Your task to perform on an android device: What is the news today? Image 0: 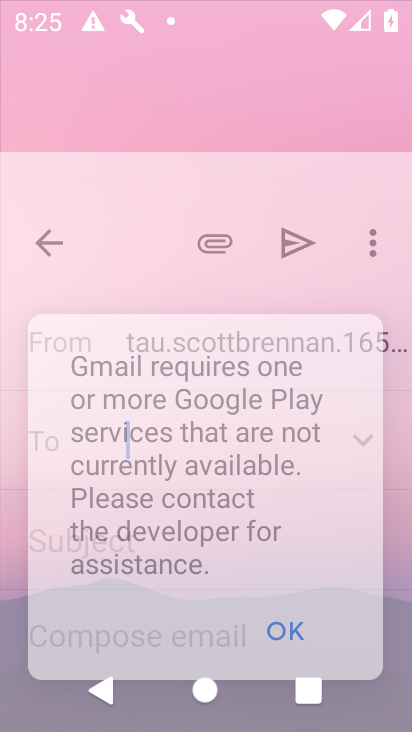
Step 0: press back button
Your task to perform on an android device: What is the news today? Image 1: 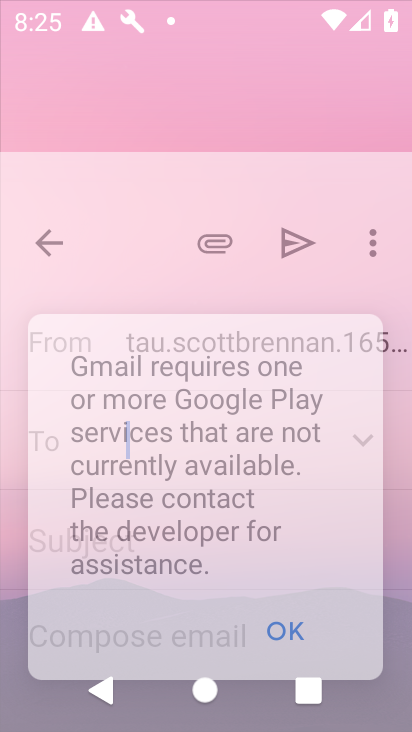
Step 1: click (284, 635)
Your task to perform on an android device: What is the news today? Image 2: 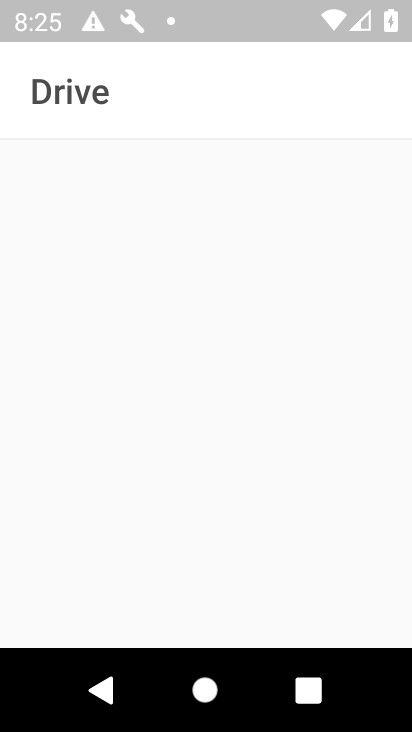
Step 2: click (288, 622)
Your task to perform on an android device: What is the news today? Image 3: 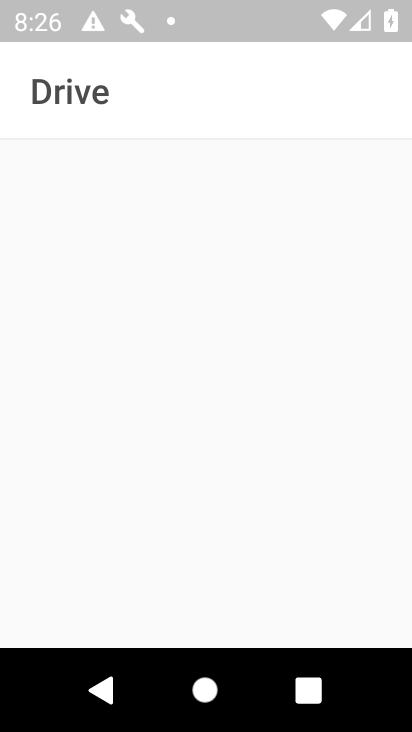
Step 3: press back button
Your task to perform on an android device: What is the news today? Image 4: 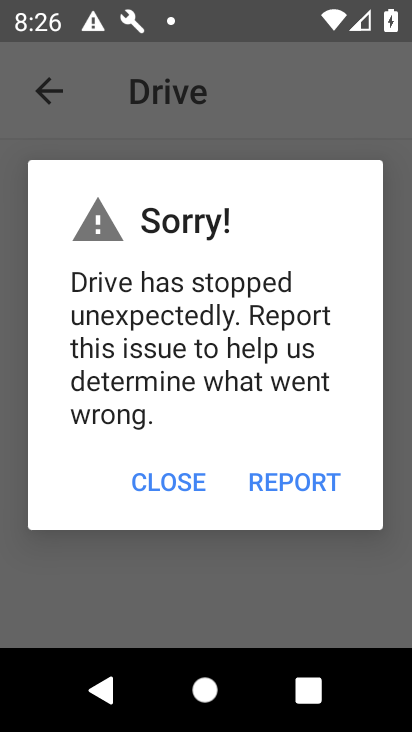
Step 4: press back button
Your task to perform on an android device: What is the news today? Image 5: 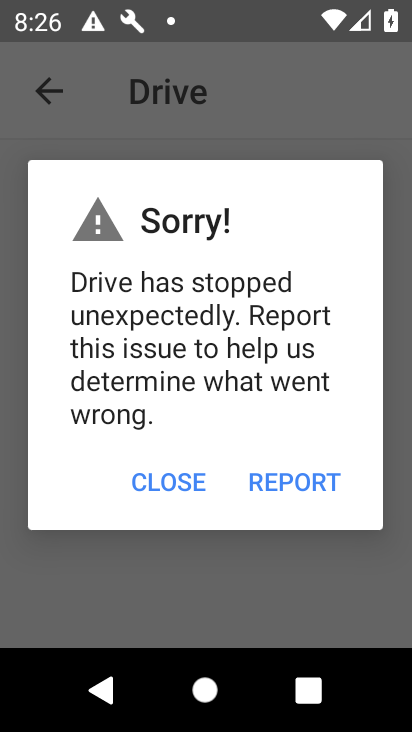
Step 5: press home button
Your task to perform on an android device: What is the news today? Image 6: 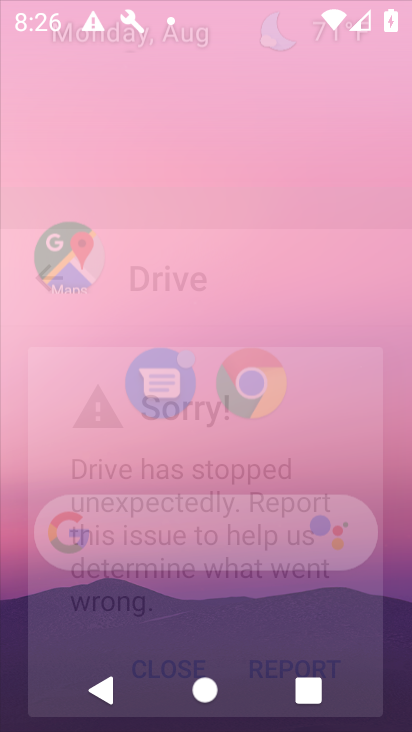
Step 6: click (201, 484)
Your task to perform on an android device: What is the news today? Image 7: 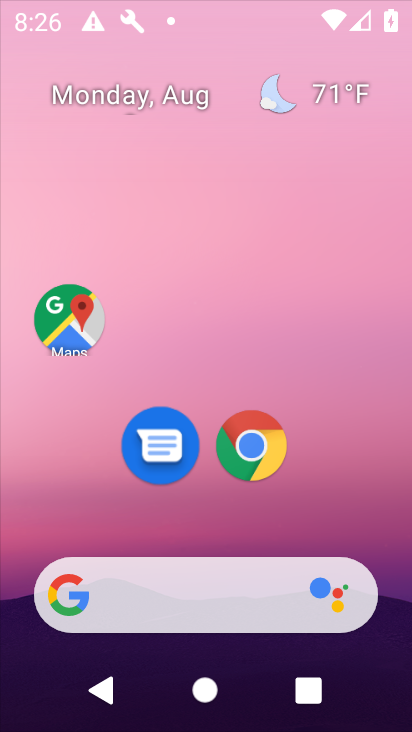
Step 7: drag from (229, 669) to (211, 186)
Your task to perform on an android device: What is the news today? Image 8: 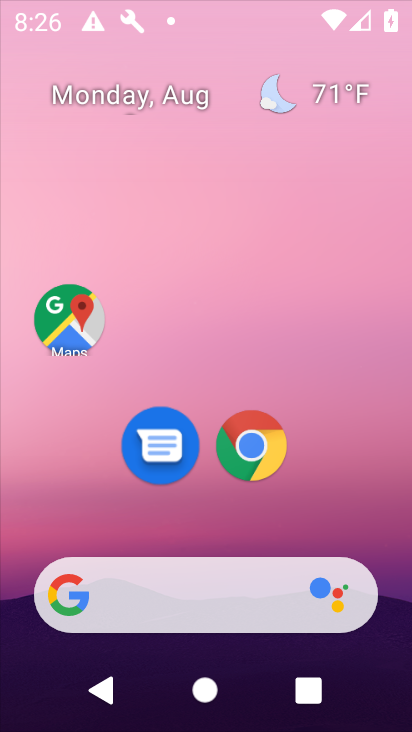
Step 8: drag from (271, 596) to (199, 248)
Your task to perform on an android device: What is the news today? Image 9: 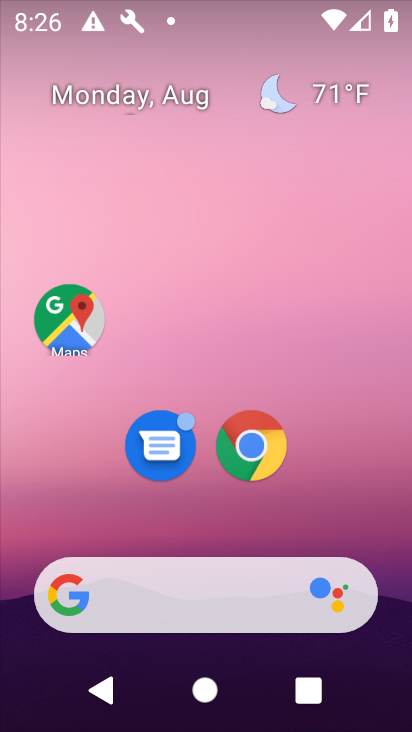
Step 9: drag from (269, 620) to (217, 157)
Your task to perform on an android device: What is the news today? Image 10: 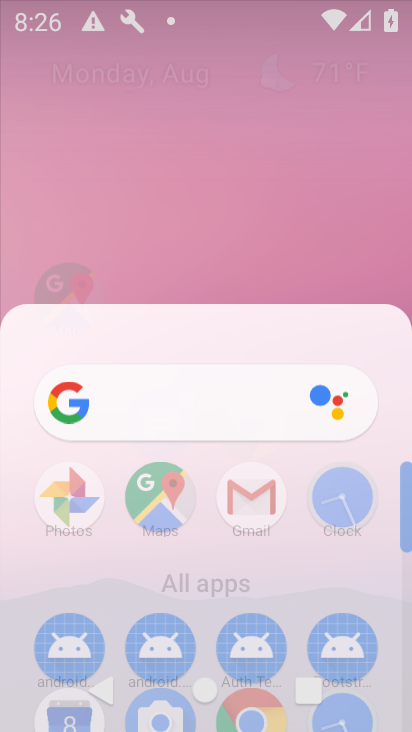
Step 10: click (244, 448)
Your task to perform on an android device: What is the news today? Image 11: 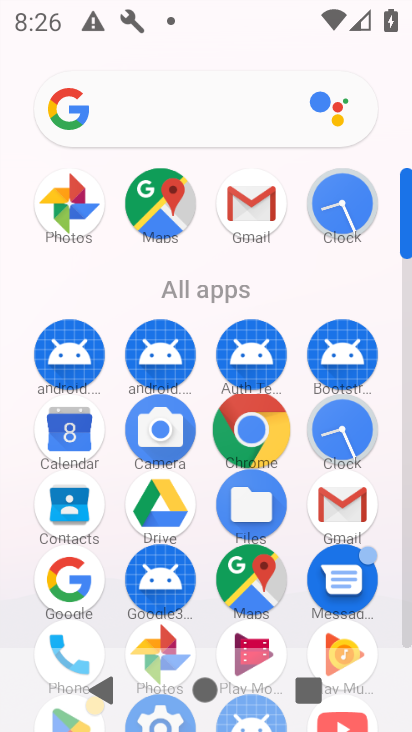
Step 11: click (251, 433)
Your task to perform on an android device: What is the news today? Image 12: 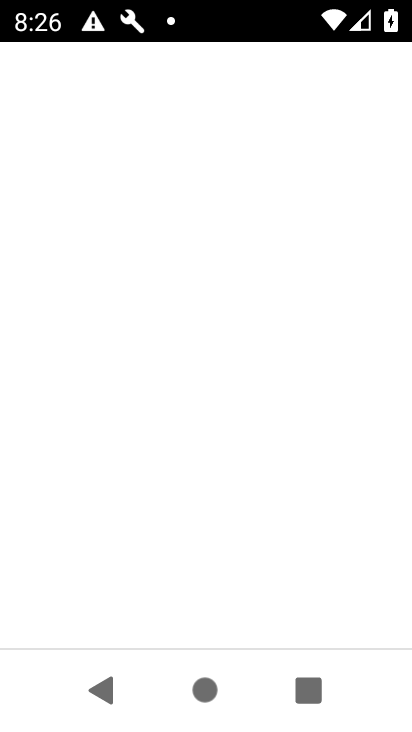
Step 12: click (251, 433)
Your task to perform on an android device: What is the news today? Image 13: 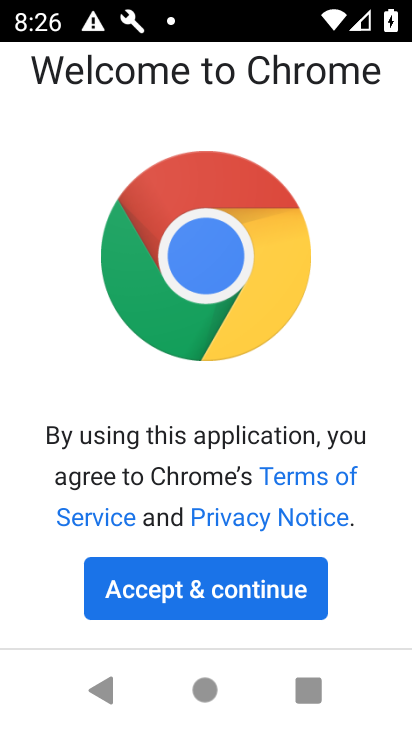
Step 13: click (223, 598)
Your task to perform on an android device: What is the news today? Image 14: 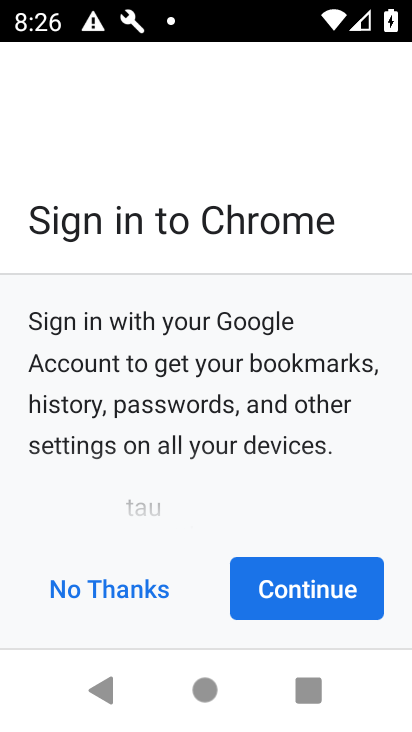
Step 14: click (68, 569)
Your task to perform on an android device: What is the news today? Image 15: 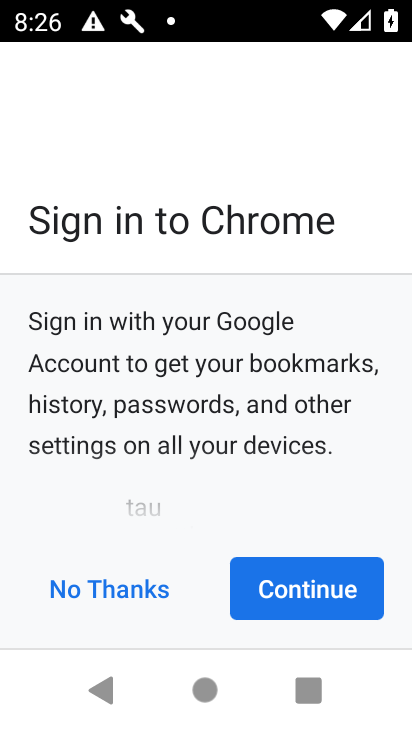
Step 15: click (68, 571)
Your task to perform on an android device: What is the news today? Image 16: 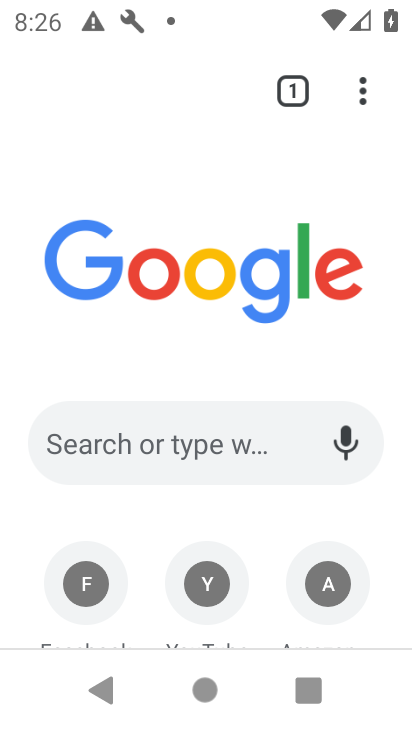
Step 16: task complete